Your task to perform on an android device: Open Google Image 0: 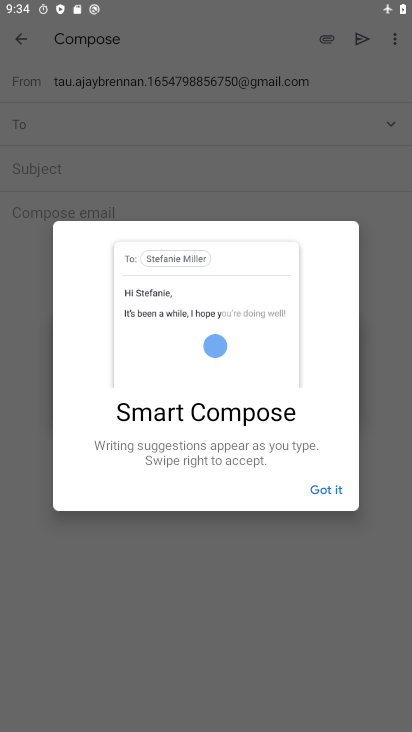
Step 0: press home button
Your task to perform on an android device: Open Google Image 1: 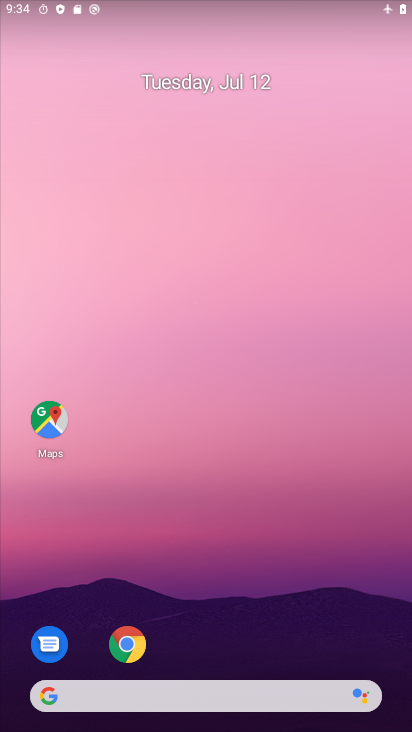
Step 1: drag from (173, 641) to (177, 163)
Your task to perform on an android device: Open Google Image 2: 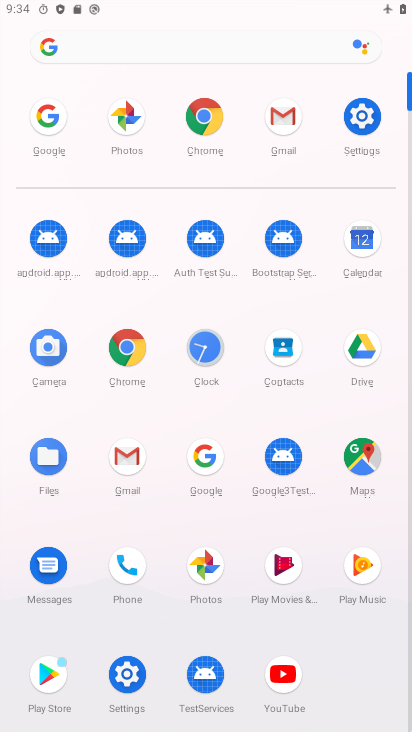
Step 2: click (193, 466)
Your task to perform on an android device: Open Google Image 3: 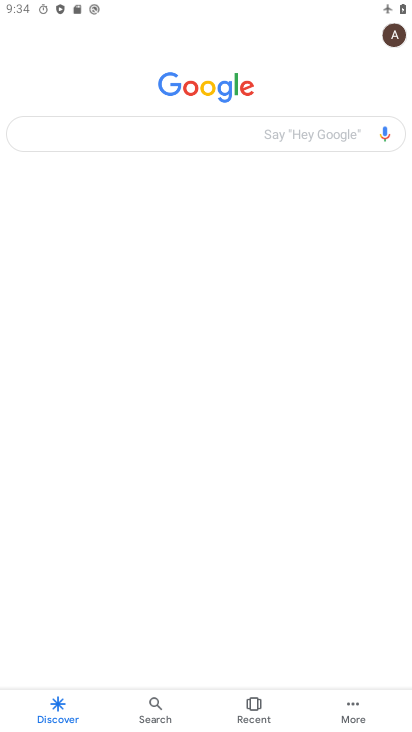
Step 3: task complete